Your task to perform on an android device: Open my contact list Image 0: 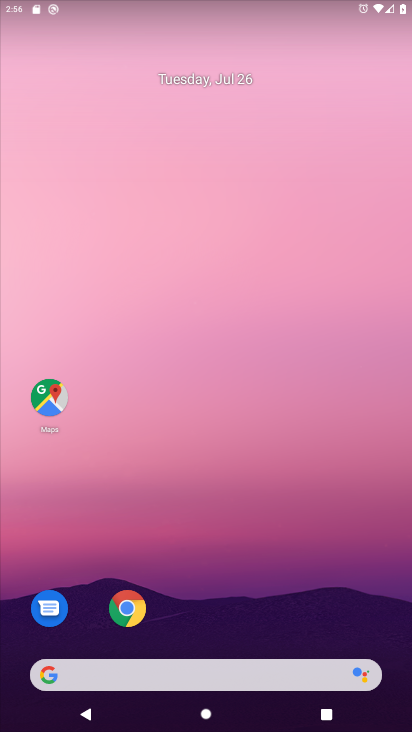
Step 0: drag from (293, 559) to (293, 74)
Your task to perform on an android device: Open my contact list Image 1: 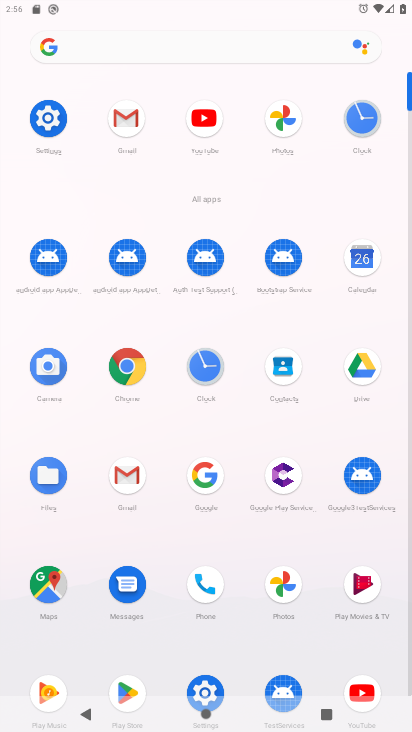
Step 1: click (285, 374)
Your task to perform on an android device: Open my contact list Image 2: 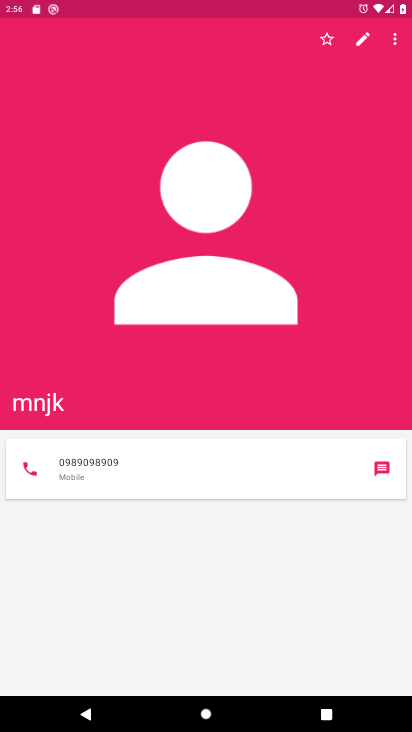
Step 2: task complete